Your task to perform on an android device: delete browsing data in the chrome app Image 0: 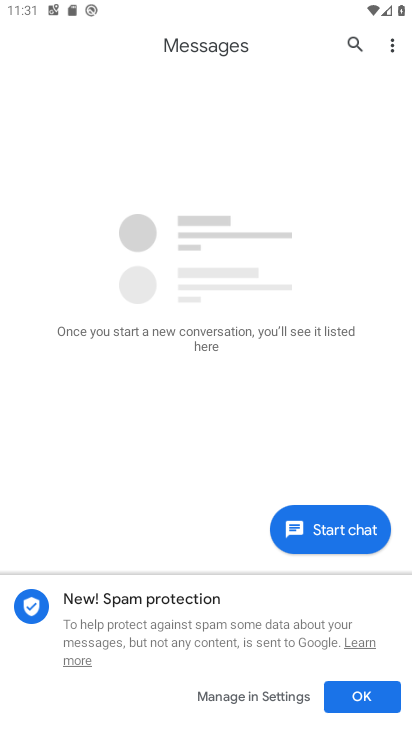
Step 0: press home button
Your task to perform on an android device: delete browsing data in the chrome app Image 1: 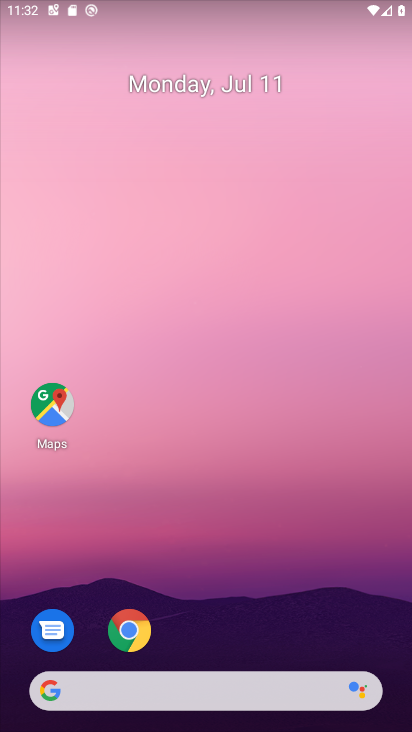
Step 1: click (139, 624)
Your task to perform on an android device: delete browsing data in the chrome app Image 2: 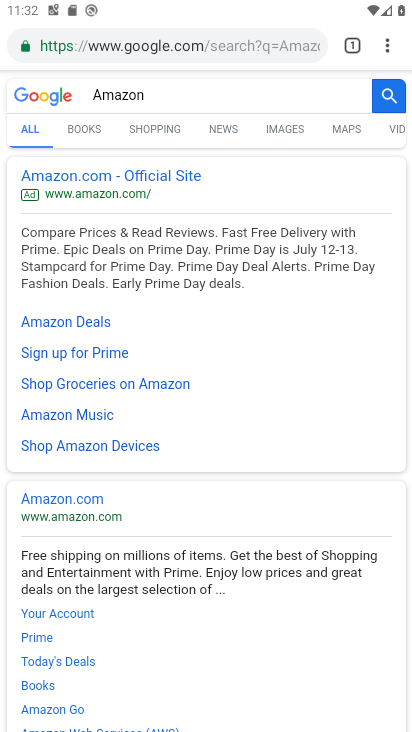
Step 2: click (384, 42)
Your task to perform on an android device: delete browsing data in the chrome app Image 3: 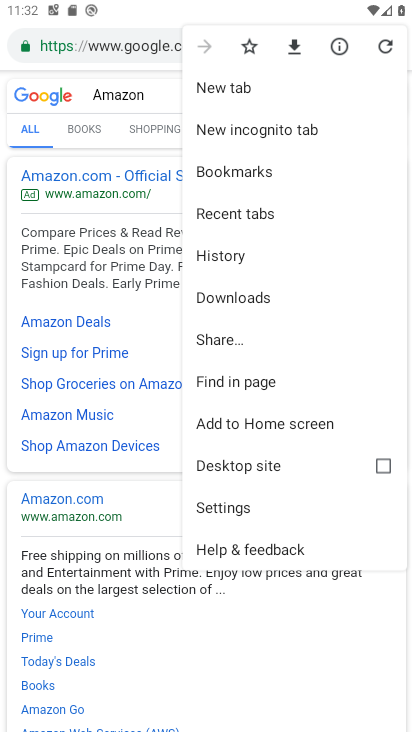
Step 3: click (233, 248)
Your task to perform on an android device: delete browsing data in the chrome app Image 4: 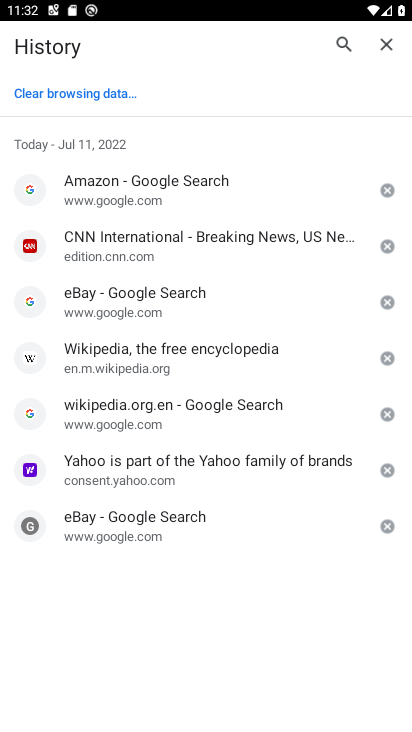
Step 4: click (76, 88)
Your task to perform on an android device: delete browsing data in the chrome app Image 5: 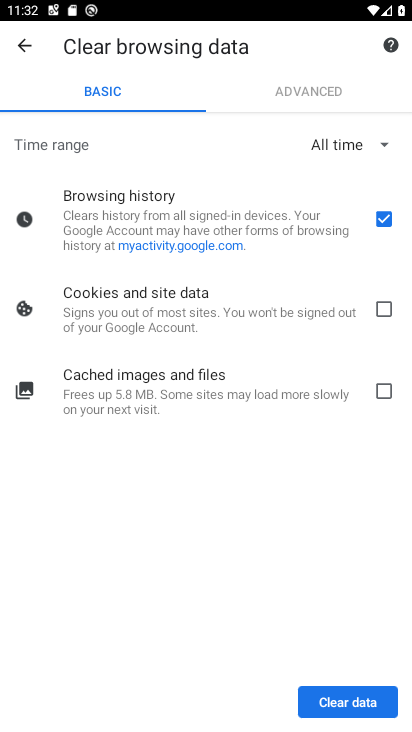
Step 5: click (60, 95)
Your task to perform on an android device: delete browsing data in the chrome app Image 6: 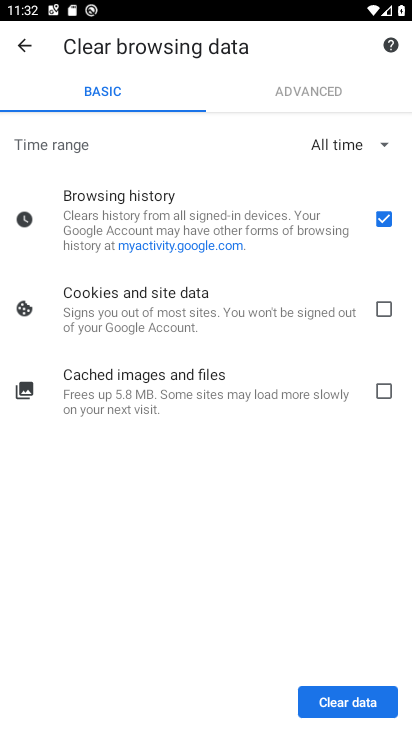
Step 6: click (382, 302)
Your task to perform on an android device: delete browsing data in the chrome app Image 7: 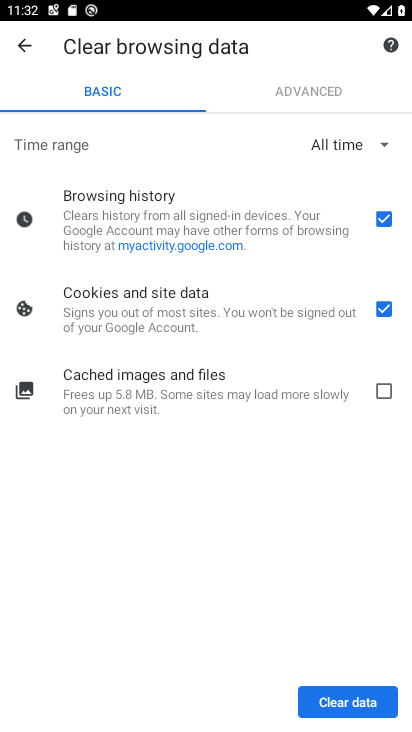
Step 7: click (383, 392)
Your task to perform on an android device: delete browsing data in the chrome app Image 8: 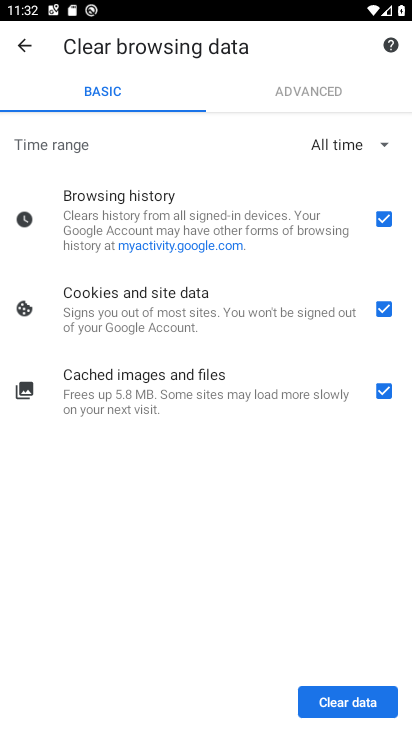
Step 8: click (356, 709)
Your task to perform on an android device: delete browsing data in the chrome app Image 9: 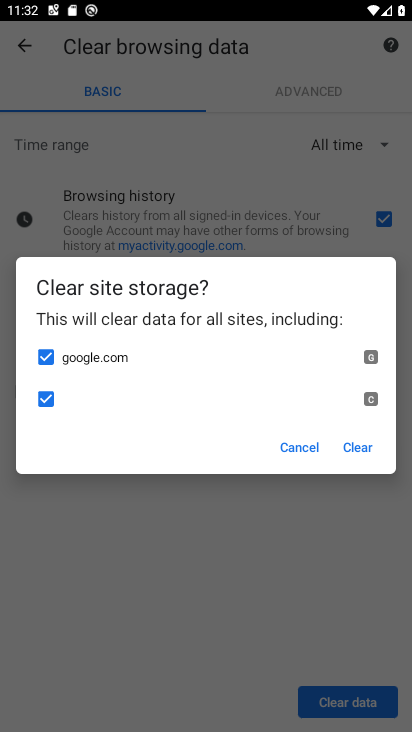
Step 9: click (361, 453)
Your task to perform on an android device: delete browsing data in the chrome app Image 10: 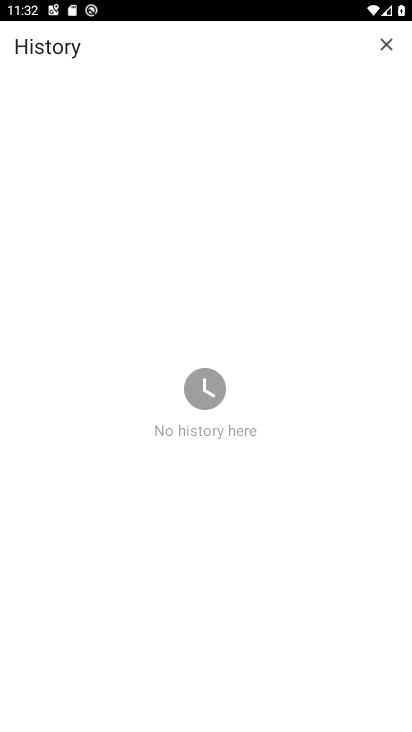
Step 10: task complete